Your task to perform on an android device: turn on the 12-hour format for clock Image 0: 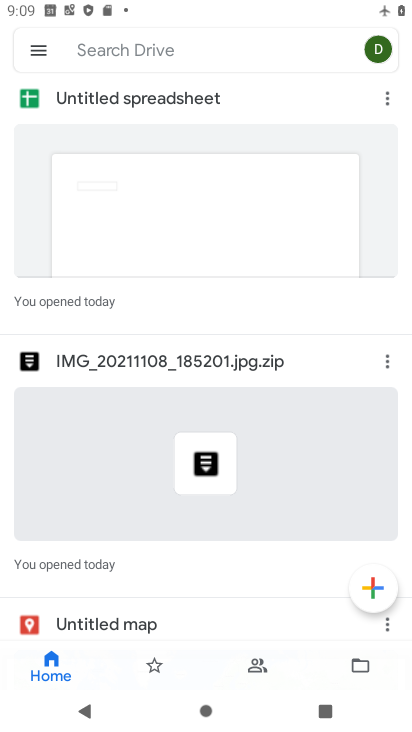
Step 0: press home button
Your task to perform on an android device: turn on the 12-hour format for clock Image 1: 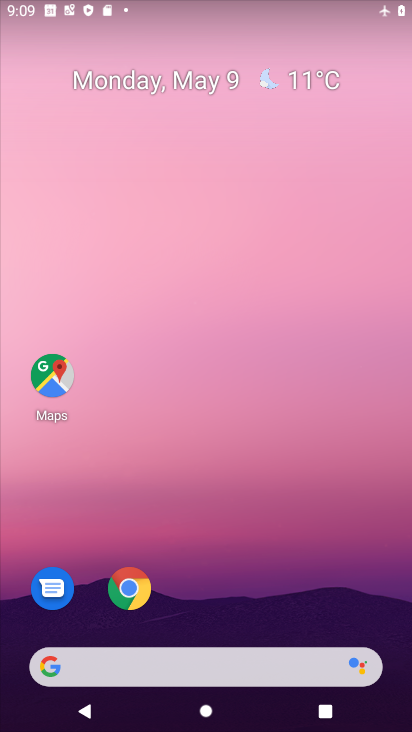
Step 1: drag from (163, 675) to (316, 147)
Your task to perform on an android device: turn on the 12-hour format for clock Image 2: 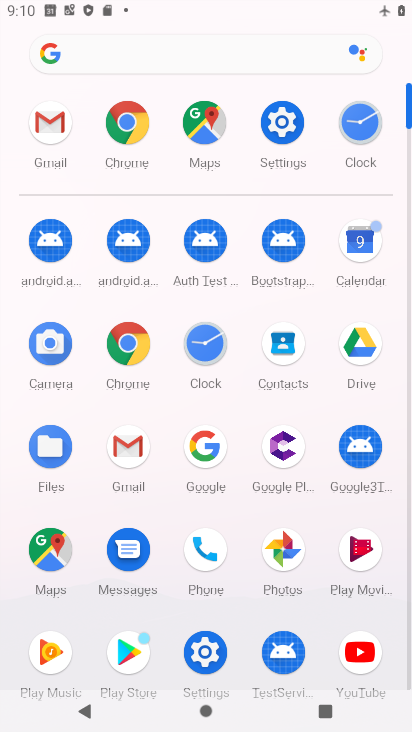
Step 2: click (362, 137)
Your task to perform on an android device: turn on the 12-hour format for clock Image 3: 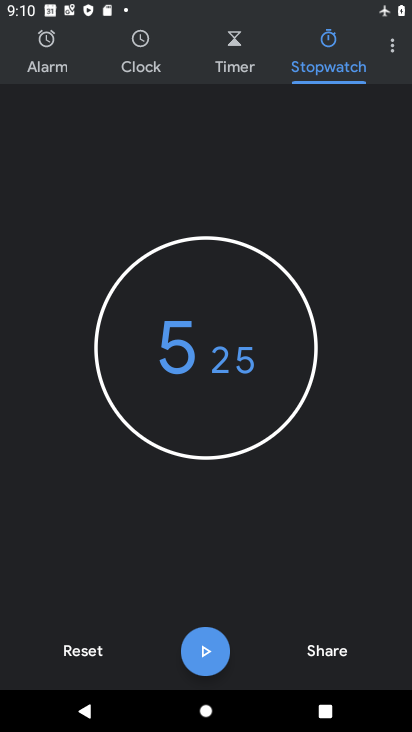
Step 3: click (390, 47)
Your task to perform on an android device: turn on the 12-hour format for clock Image 4: 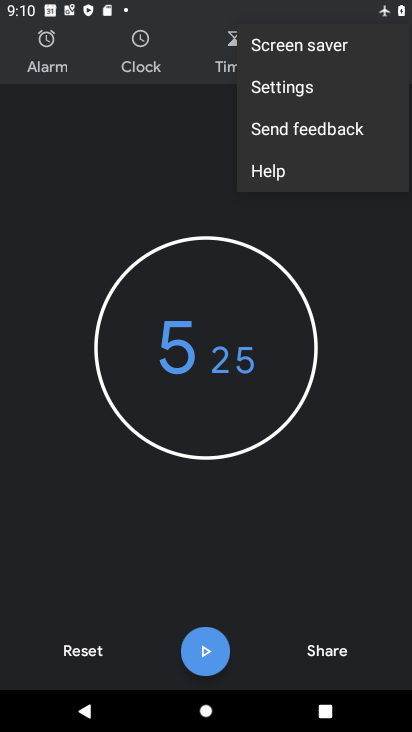
Step 4: click (283, 89)
Your task to perform on an android device: turn on the 12-hour format for clock Image 5: 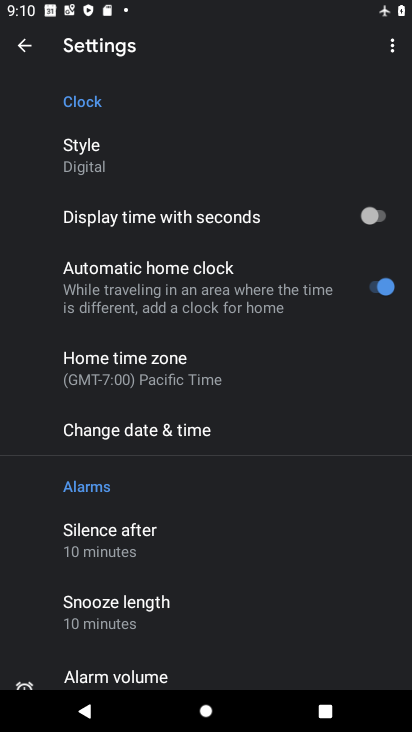
Step 5: drag from (174, 490) to (219, 370)
Your task to perform on an android device: turn on the 12-hour format for clock Image 6: 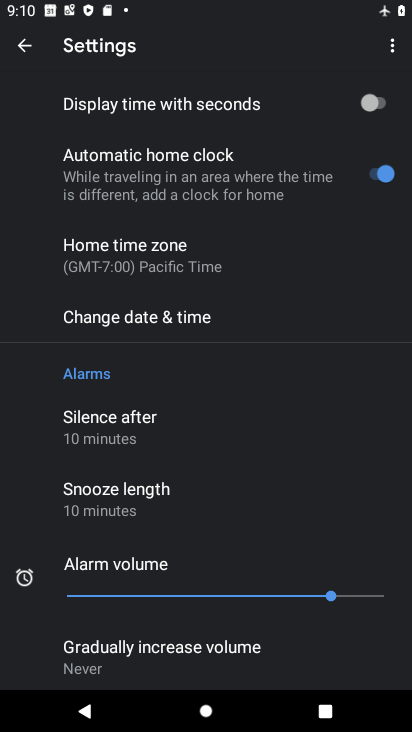
Step 6: click (185, 322)
Your task to perform on an android device: turn on the 12-hour format for clock Image 7: 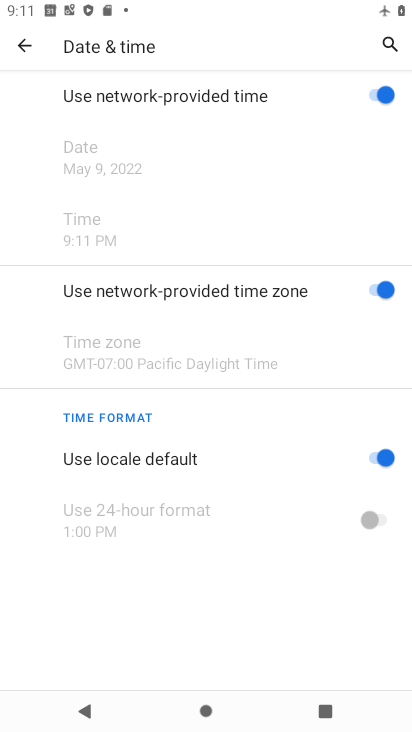
Step 7: task complete